Your task to perform on an android device: empty trash in the gmail app Image 0: 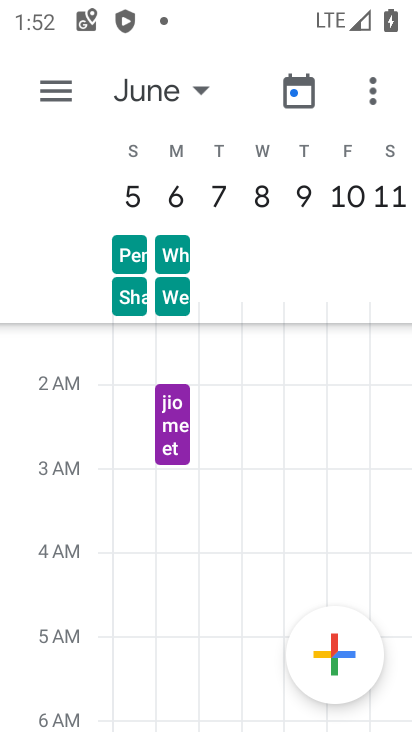
Step 0: press home button
Your task to perform on an android device: empty trash in the gmail app Image 1: 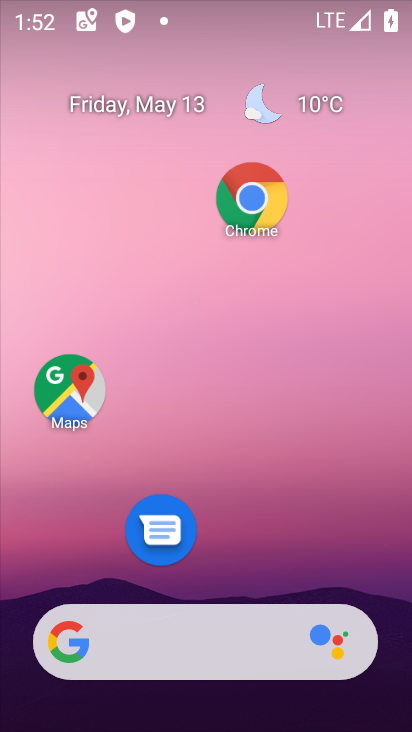
Step 1: drag from (212, 596) to (135, 55)
Your task to perform on an android device: empty trash in the gmail app Image 2: 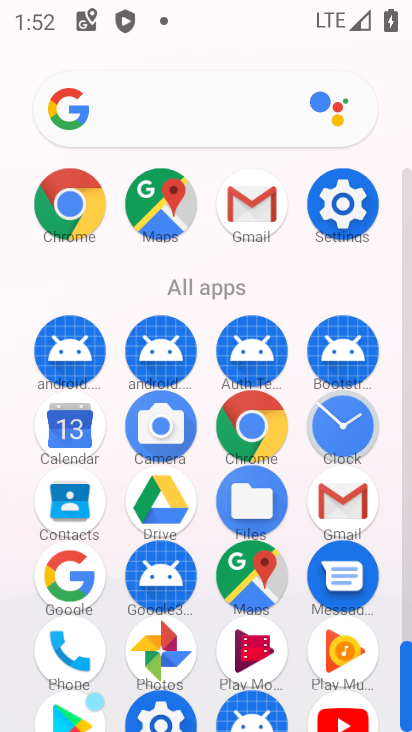
Step 2: click (344, 509)
Your task to perform on an android device: empty trash in the gmail app Image 3: 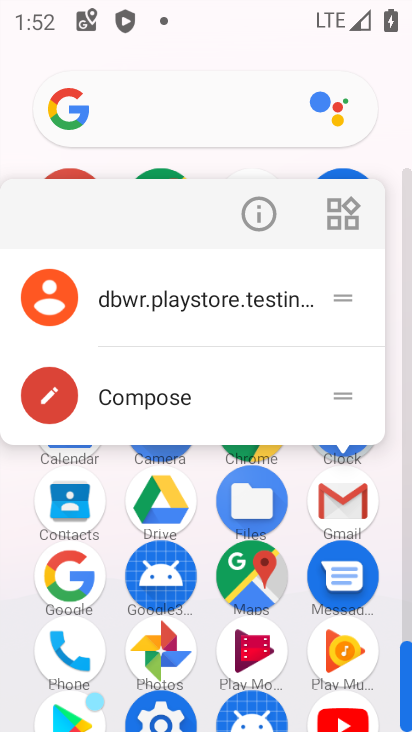
Step 3: click (338, 490)
Your task to perform on an android device: empty trash in the gmail app Image 4: 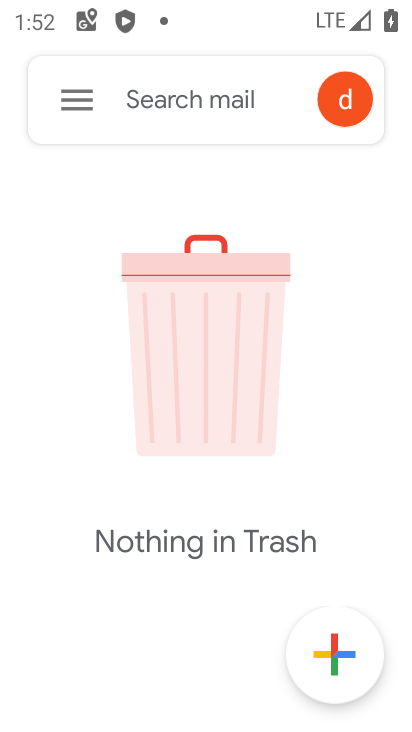
Step 4: click (66, 108)
Your task to perform on an android device: empty trash in the gmail app Image 5: 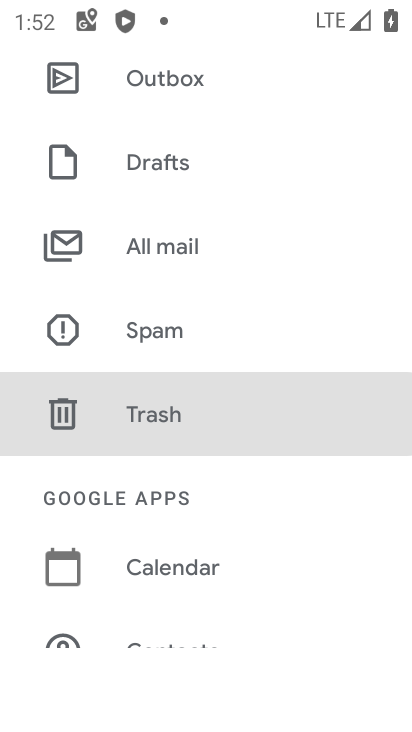
Step 5: click (110, 427)
Your task to perform on an android device: empty trash in the gmail app Image 6: 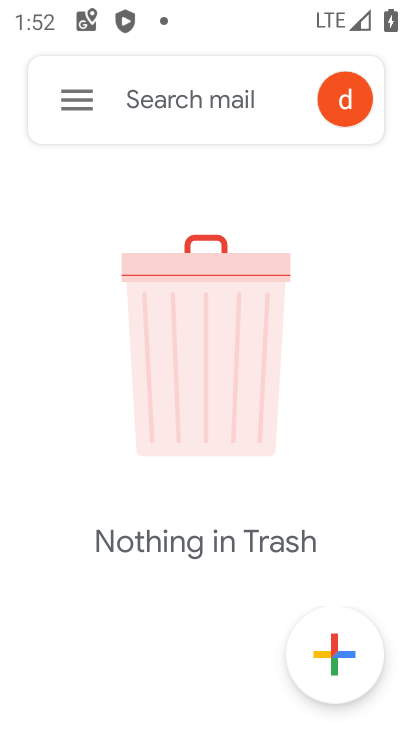
Step 6: task complete